Your task to perform on an android device: Go to settings Image 0: 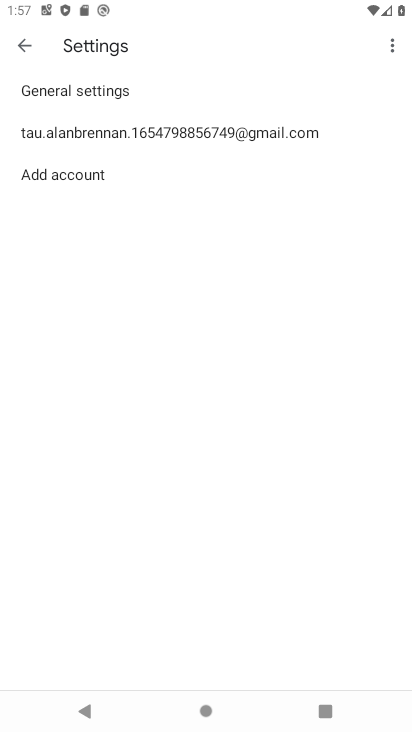
Step 0: press home button
Your task to perform on an android device: Go to settings Image 1: 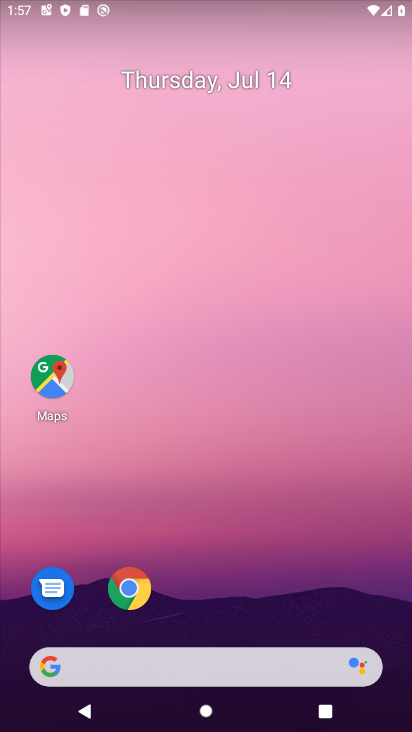
Step 1: drag from (130, 663) to (150, 55)
Your task to perform on an android device: Go to settings Image 2: 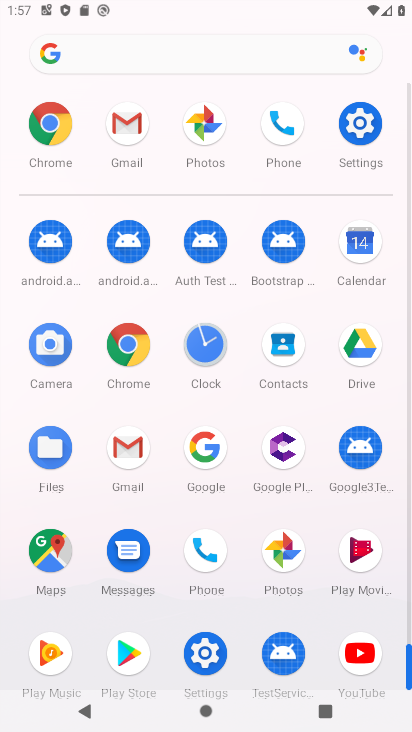
Step 2: click (349, 132)
Your task to perform on an android device: Go to settings Image 3: 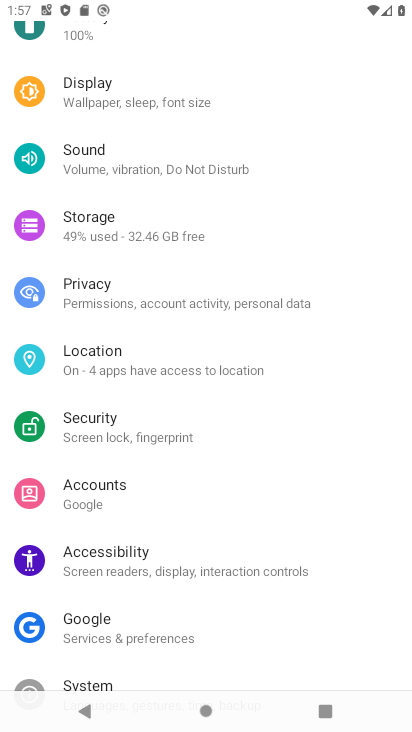
Step 3: task complete